Your task to perform on an android device: delete the emails in spam in the gmail app Image 0: 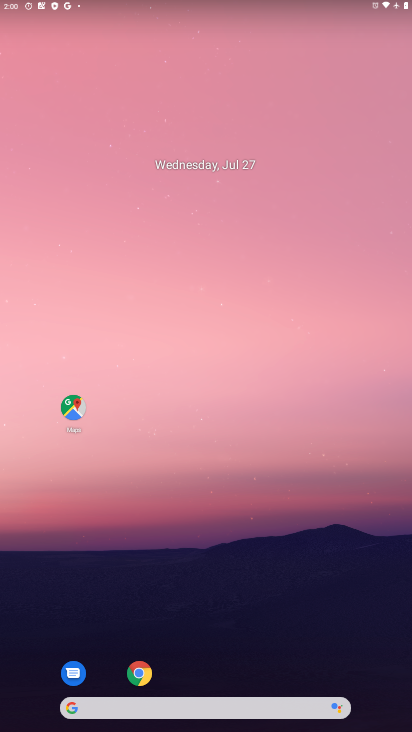
Step 0: drag from (212, 642) to (226, 10)
Your task to perform on an android device: delete the emails in spam in the gmail app Image 1: 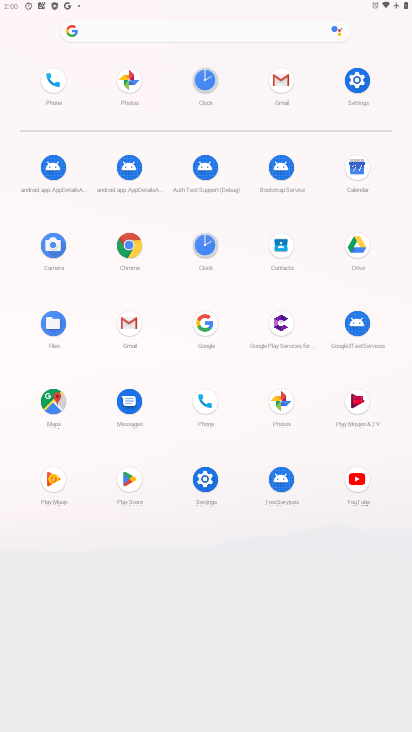
Step 1: click (284, 85)
Your task to perform on an android device: delete the emails in spam in the gmail app Image 2: 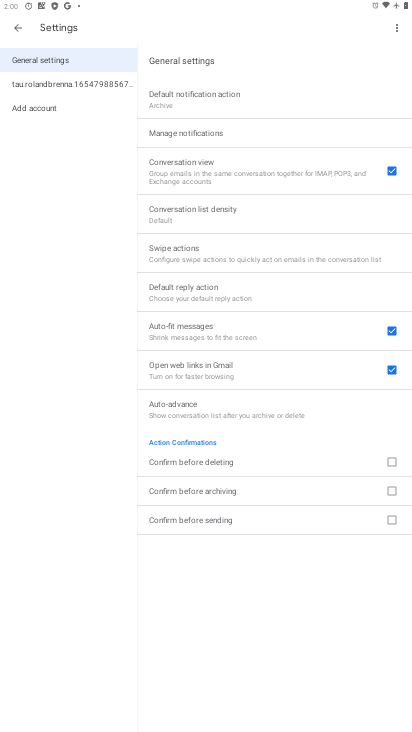
Step 2: click (19, 28)
Your task to perform on an android device: delete the emails in spam in the gmail app Image 3: 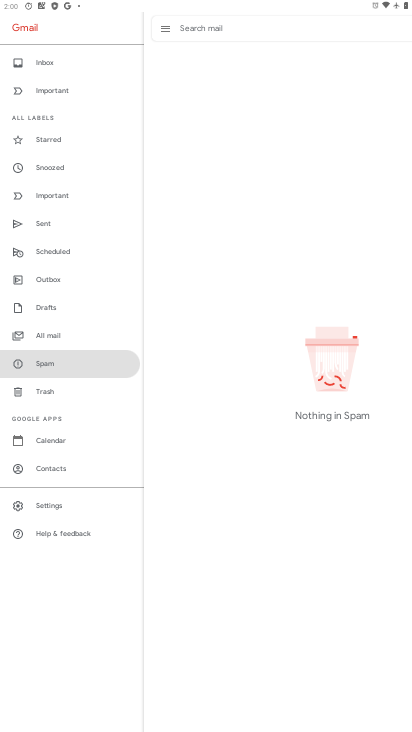
Step 3: click (53, 361)
Your task to perform on an android device: delete the emails in spam in the gmail app Image 4: 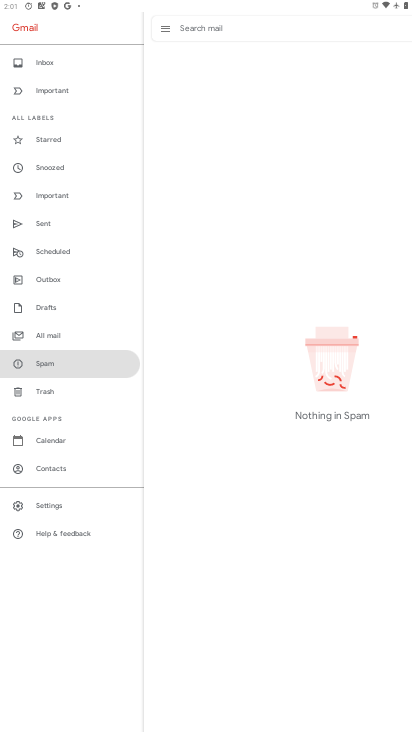
Step 4: task complete